Your task to perform on an android device: What's the weather going to be tomorrow? Image 0: 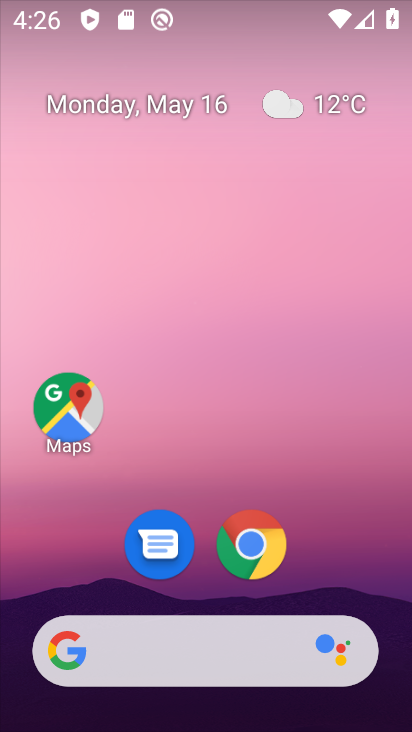
Step 0: drag from (347, 569) to (201, 208)
Your task to perform on an android device: What's the weather going to be tomorrow? Image 1: 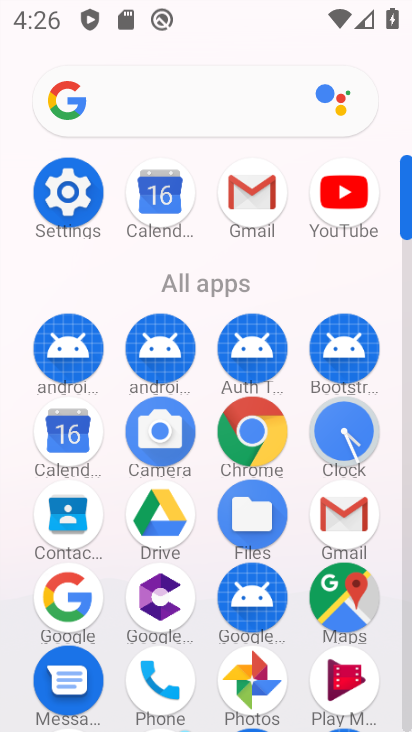
Step 1: drag from (201, 557) to (192, 430)
Your task to perform on an android device: What's the weather going to be tomorrow? Image 2: 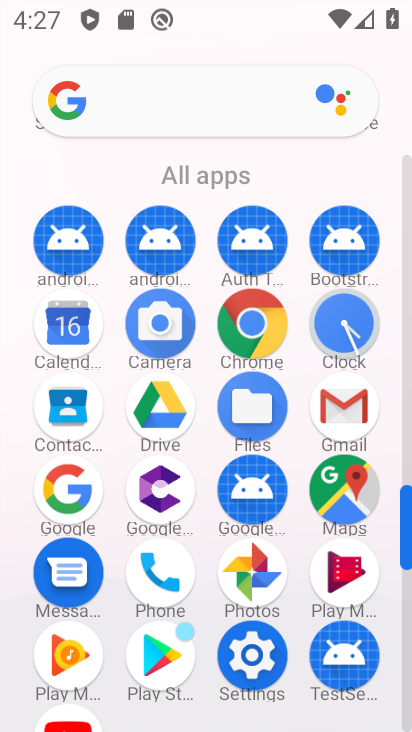
Step 2: click (60, 487)
Your task to perform on an android device: What's the weather going to be tomorrow? Image 3: 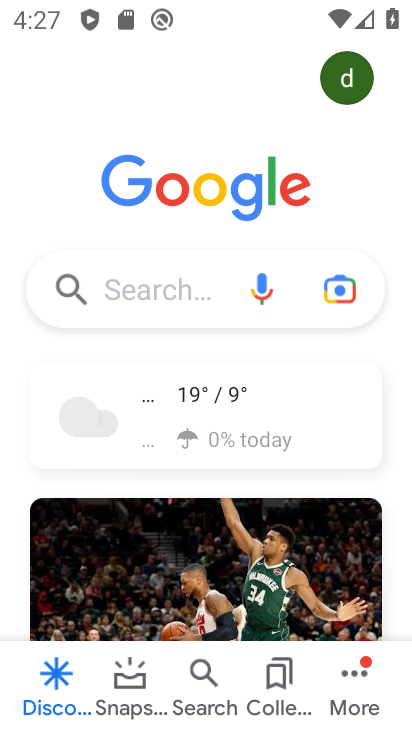
Step 3: click (214, 437)
Your task to perform on an android device: What's the weather going to be tomorrow? Image 4: 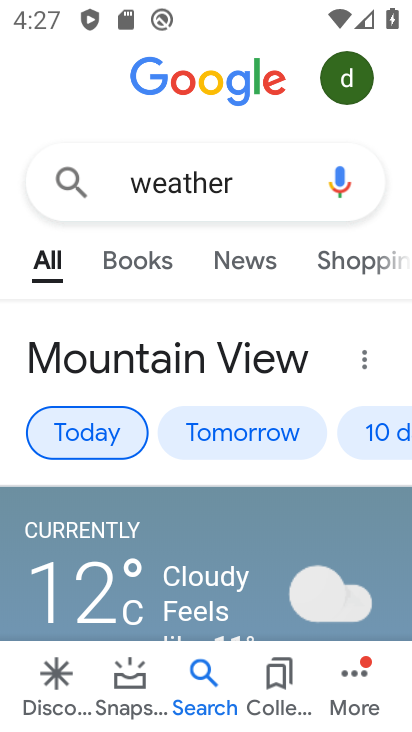
Step 4: click (257, 425)
Your task to perform on an android device: What's the weather going to be tomorrow? Image 5: 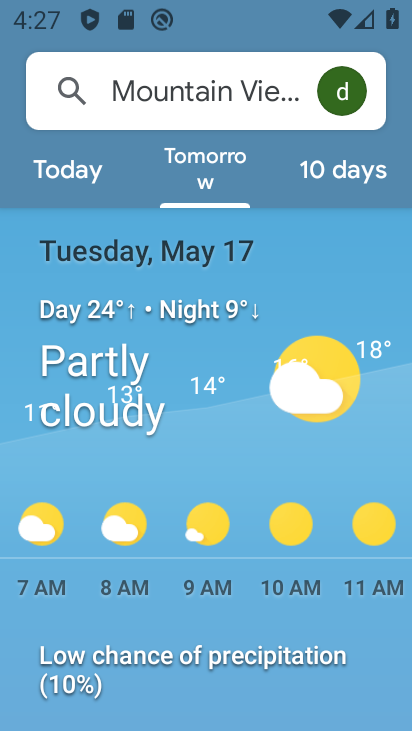
Step 5: task complete